Your task to perform on an android device: What's the weather going to be tomorrow? Image 0: 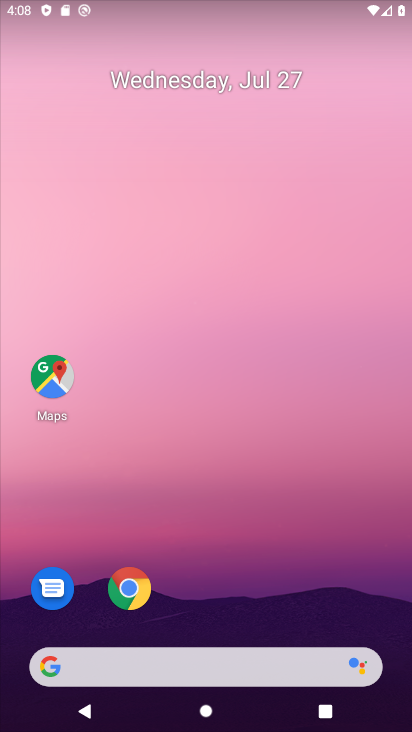
Step 0: drag from (226, 731) to (229, 112)
Your task to perform on an android device: What's the weather going to be tomorrow? Image 1: 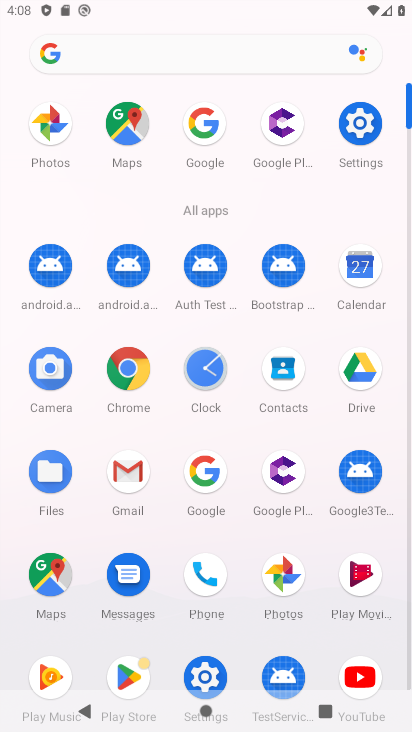
Step 1: click (207, 468)
Your task to perform on an android device: What's the weather going to be tomorrow? Image 2: 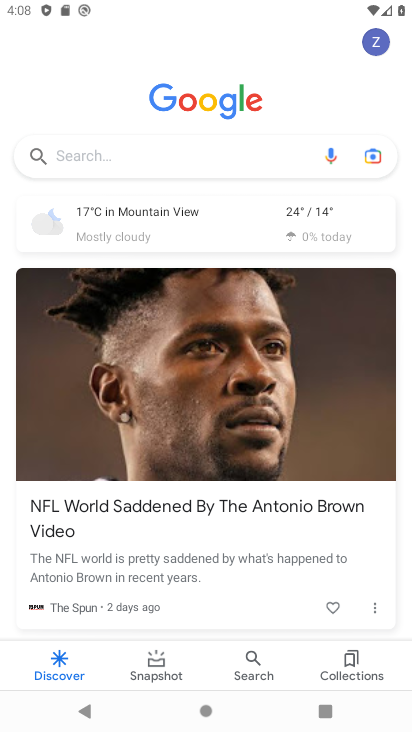
Step 2: click (155, 212)
Your task to perform on an android device: What's the weather going to be tomorrow? Image 3: 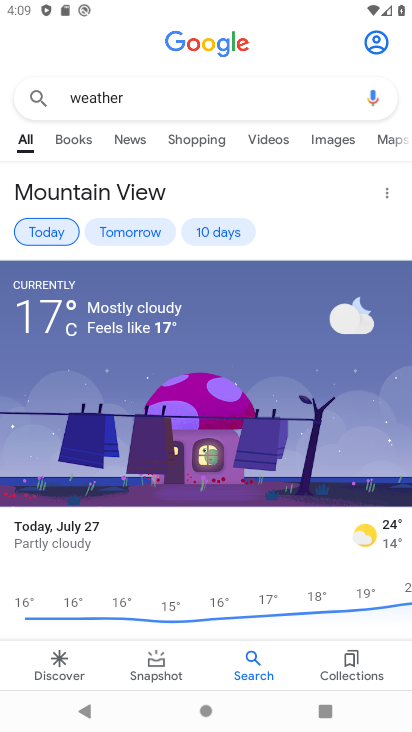
Step 3: click (140, 231)
Your task to perform on an android device: What's the weather going to be tomorrow? Image 4: 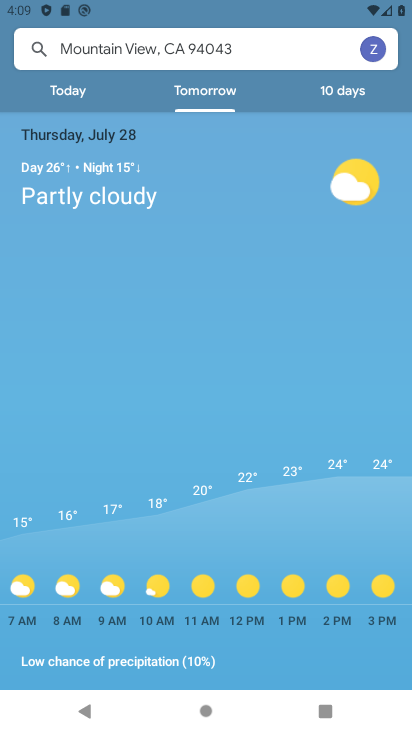
Step 4: task complete